Your task to perform on an android device: Open Google Chrome and click the shortcut for Amazon.com Image 0: 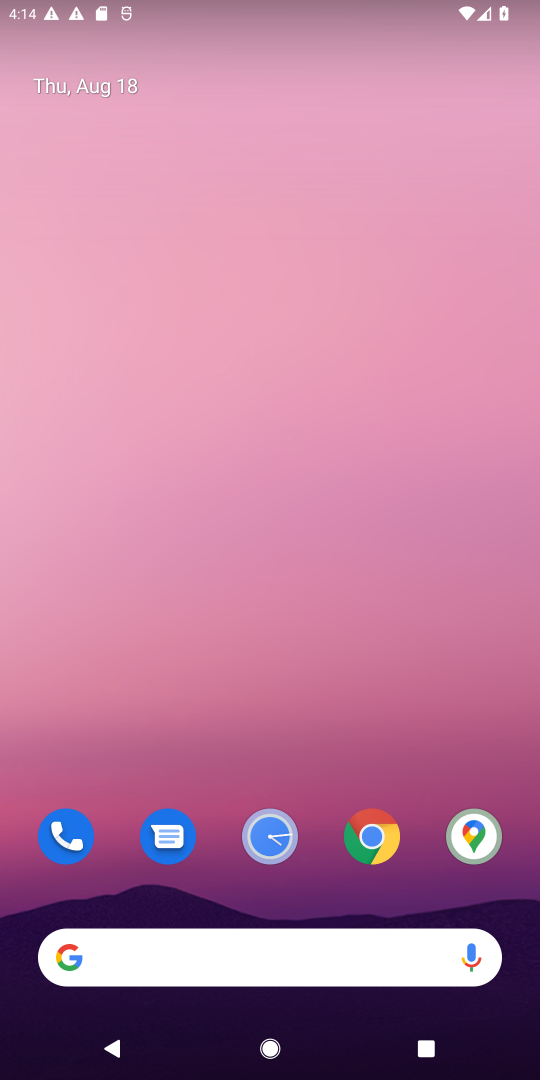
Step 0: drag from (290, 710) to (337, 5)
Your task to perform on an android device: Open Google Chrome and click the shortcut for Amazon.com Image 1: 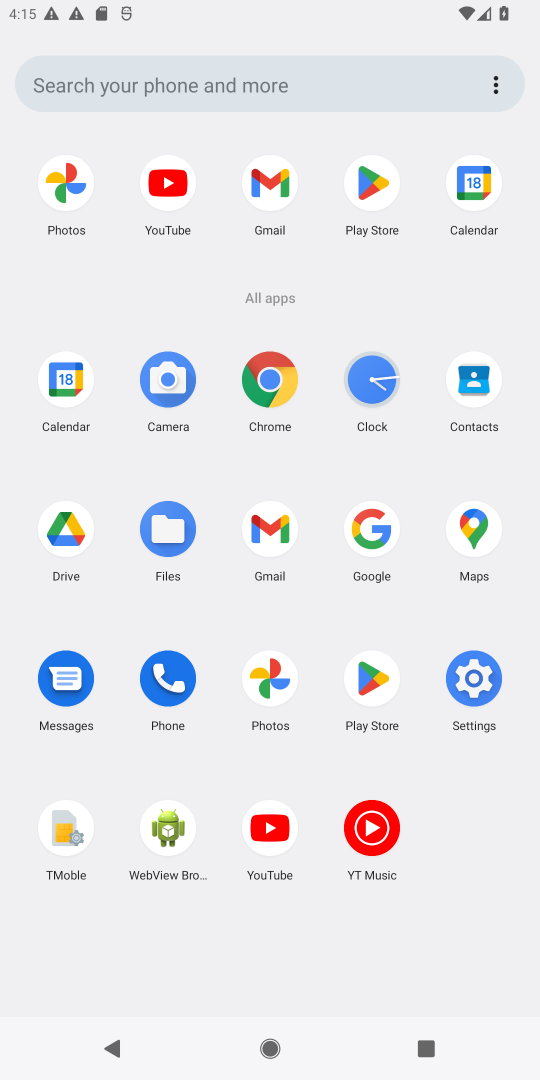
Step 1: click (274, 374)
Your task to perform on an android device: Open Google Chrome and click the shortcut for Amazon.com Image 2: 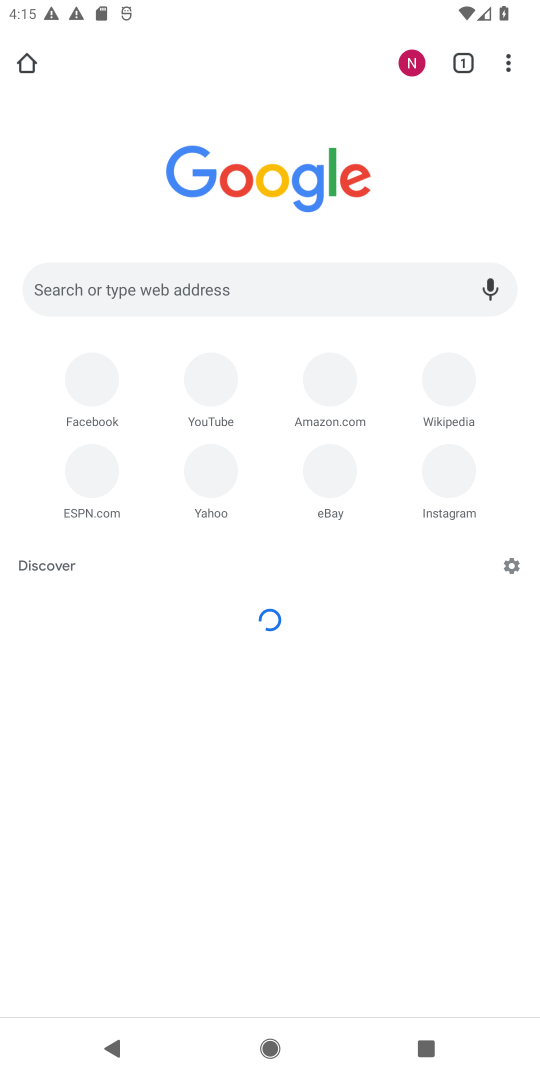
Step 2: click (339, 384)
Your task to perform on an android device: Open Google Chrome and click the shortcut for Amazon.com Image 3: 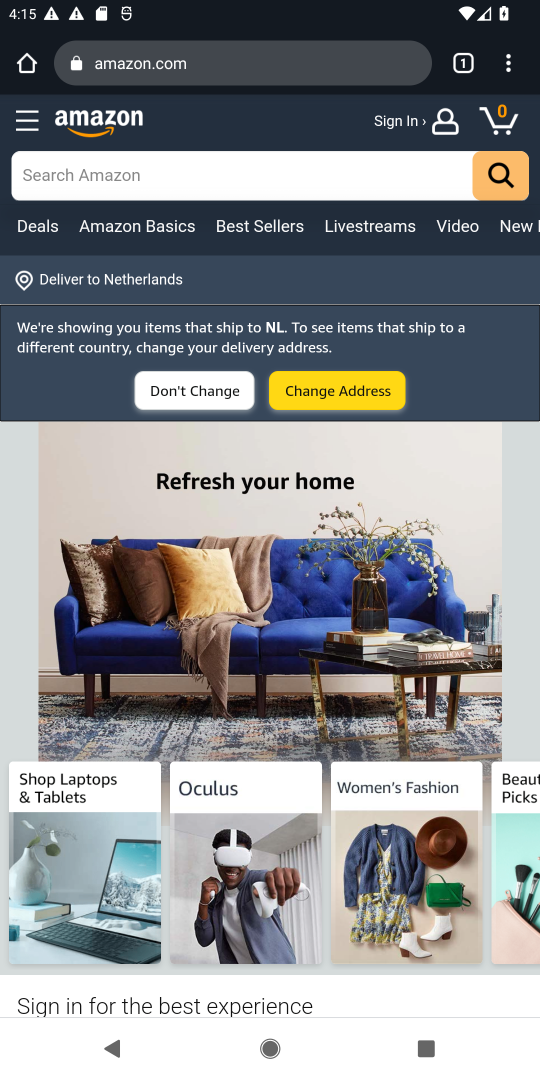
Step 3: task complete